Your task to perform on an android device: Open Yahoo.com Image 0: 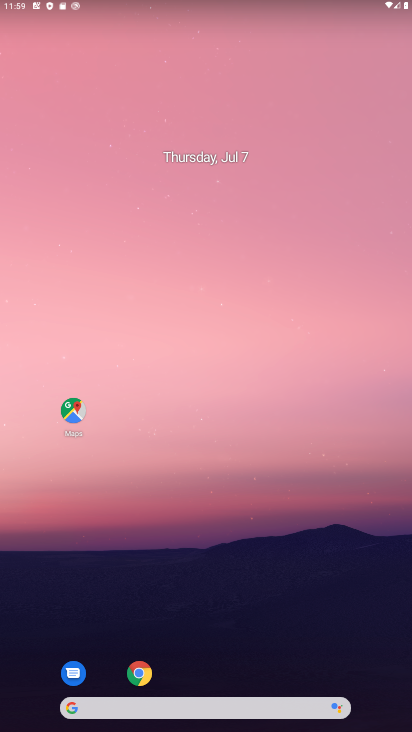
Step 0: click (142, 674)
Your task to perform on an android device: Open Yahoo.com Image 1: 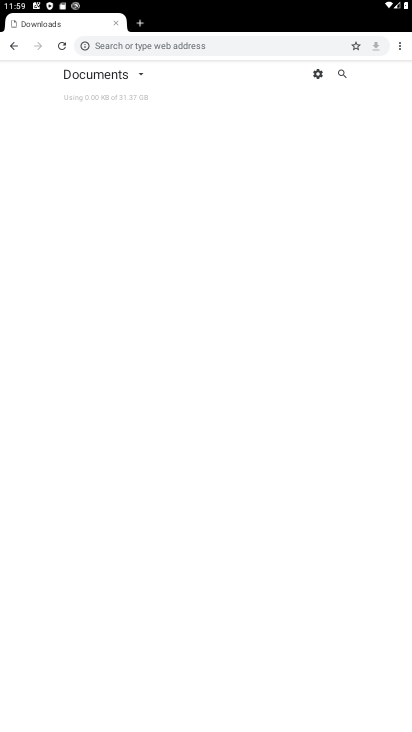
Step 1: click (263, 48)
Your task to perform on an android device: Open Yahoo.com Image 2: 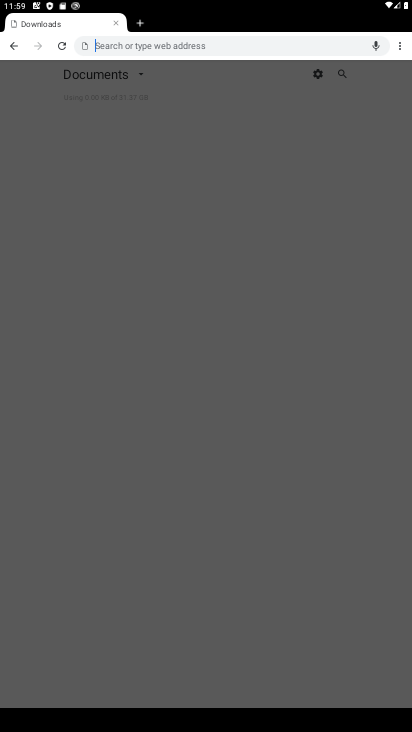
Step 2: type "Yahoo.com"
Your task to perform on an android device: Open Yahoo.com Image 3: 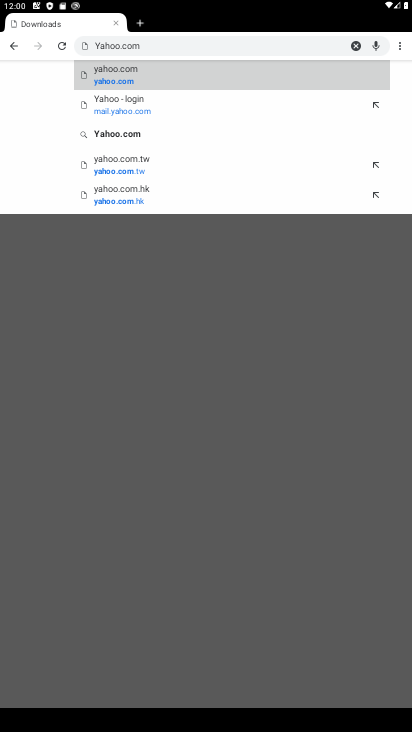
Step 3: click (131, 134)
Your task to perform on an android device: Open Yahoo.com Image 4: 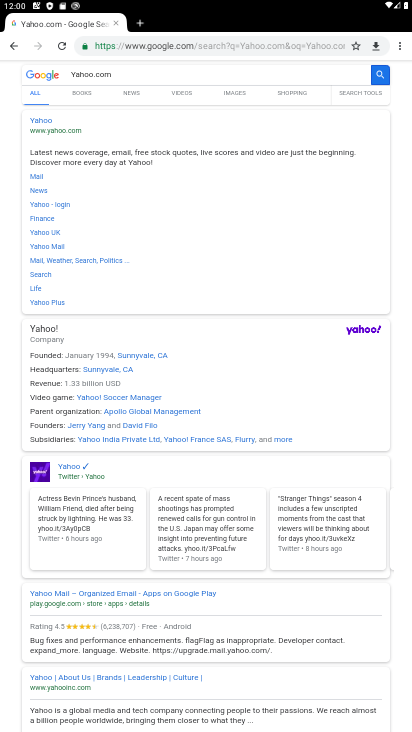
Step 4: click (46, 126)
Your task to perform on an android device: Open Yahoo.com Image 5: 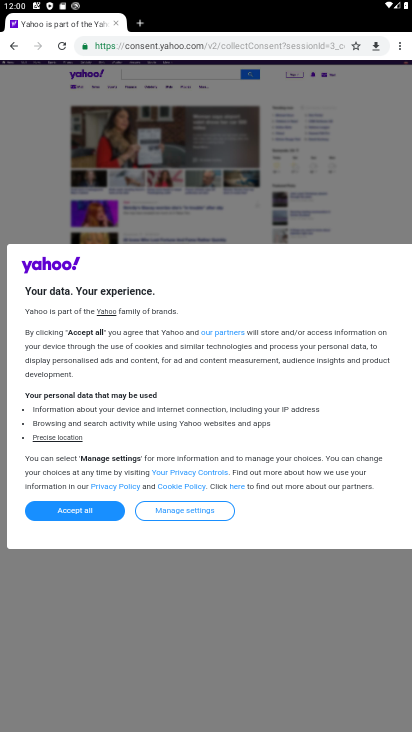
Step 5: click (90, 510)
Your task to perform on an android device: Open Yahoo.com Image 6: 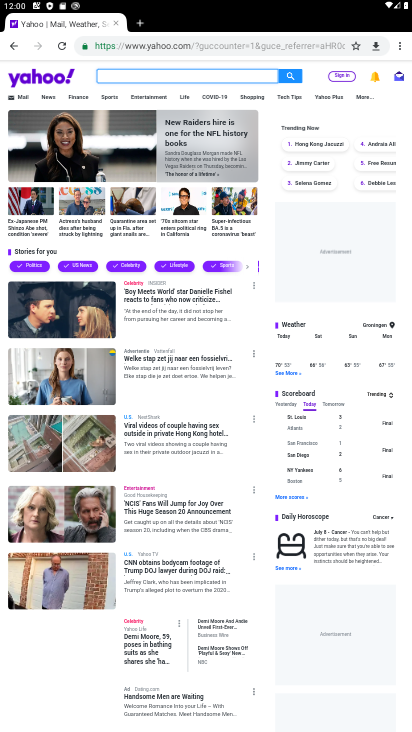
Step 6: task complete